Your task to perform on an android device: Go to settings Image 0: 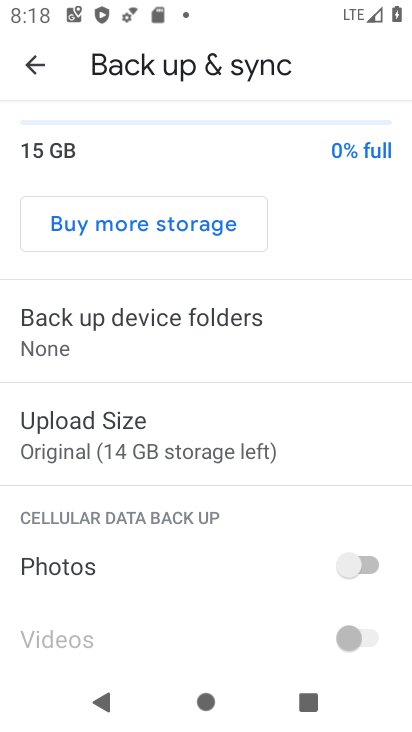
Step 0: press back button
Your task to perform on an android device: Go to settings Image 1: 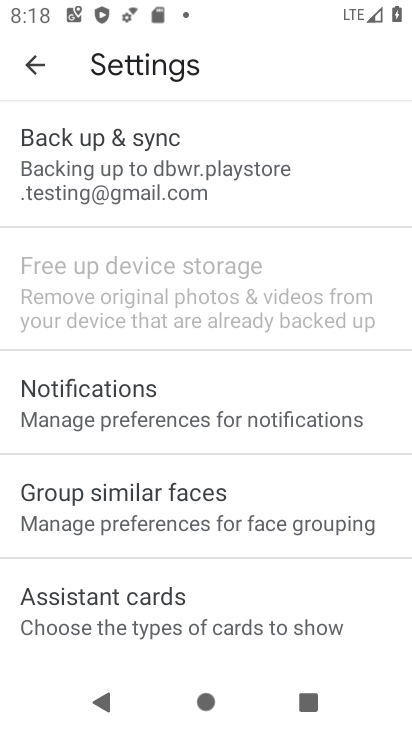
Step 1: press home button
Your task to perform on an android device: Go to settings Image 2: 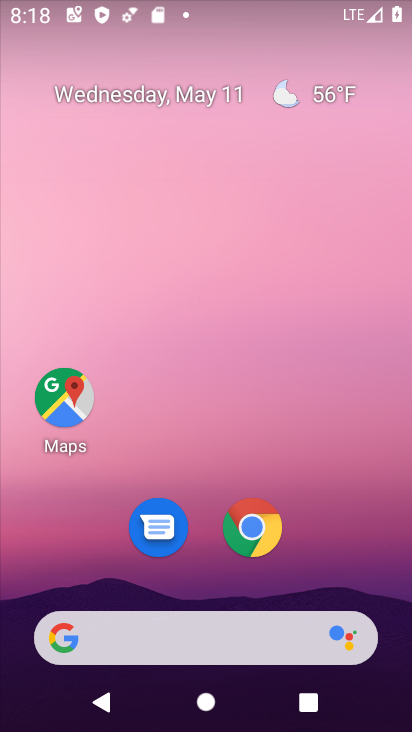
Step 2: drag from (174, 585) to (301, 72)
Your task to perform on an android device: Go to settings Image 3: 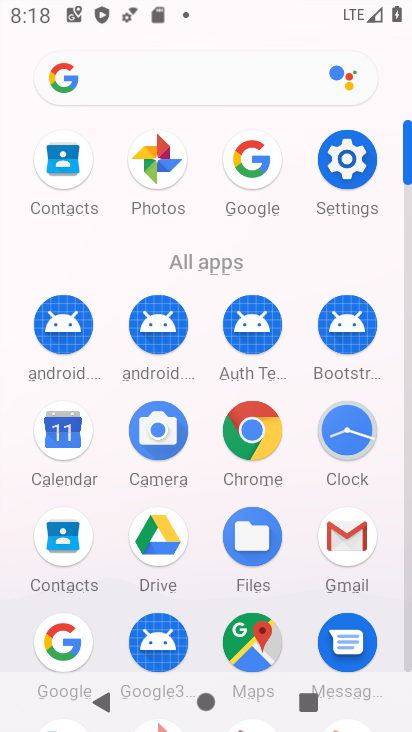
Step 3: click (355, 183)
Your task to perform on an android device: Go to settings Image 4: 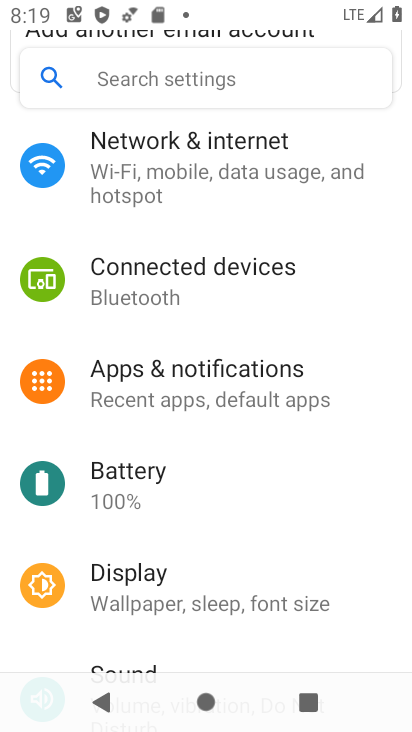
Step 4: task complete